Your task to perform on an android device: Open Maps and search for coffee Image 0: 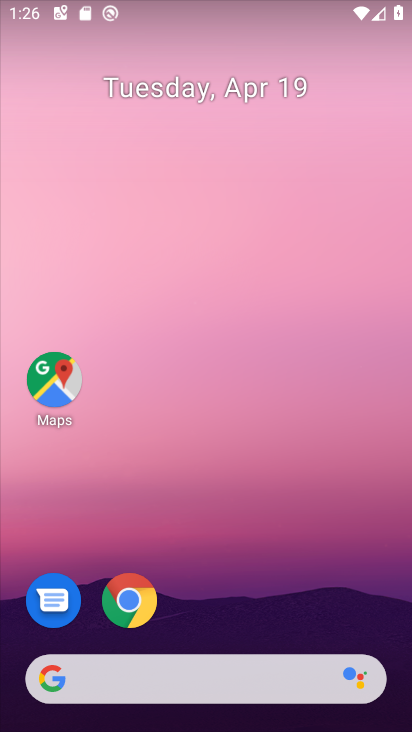
Step 0: drag from (330, 571) to (304, 0)
Your task to perform on an android device: Open Maps and search for coffee Image 1: 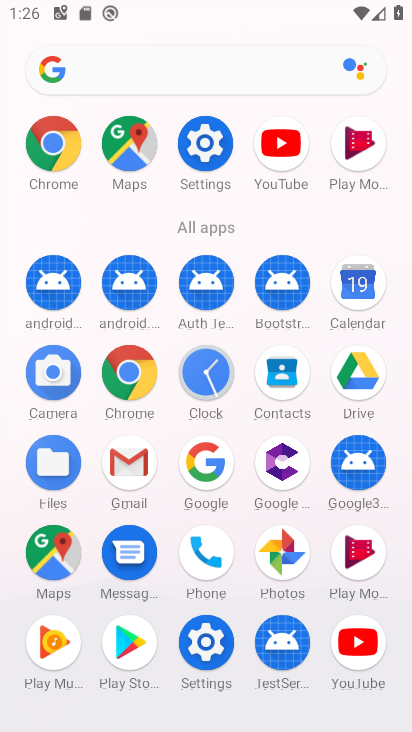
Step 1: click (47, 556)
Your task to perform on an android device: Open Maps and search for coffee Image 2: 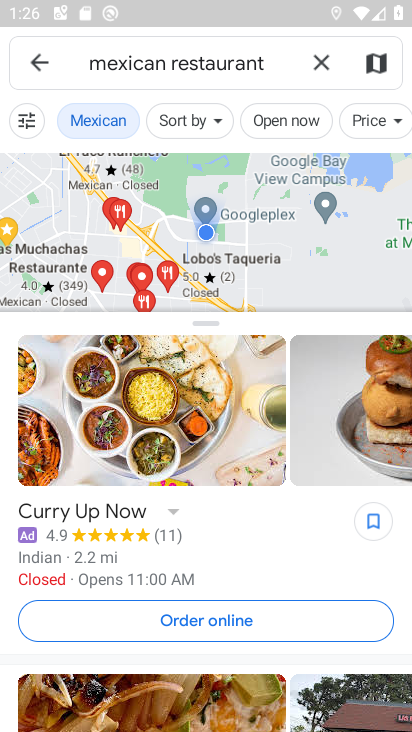
Step 2: click (324, 60)
Your task to perform on an android device: Open Maps and search for coffee Image 3: 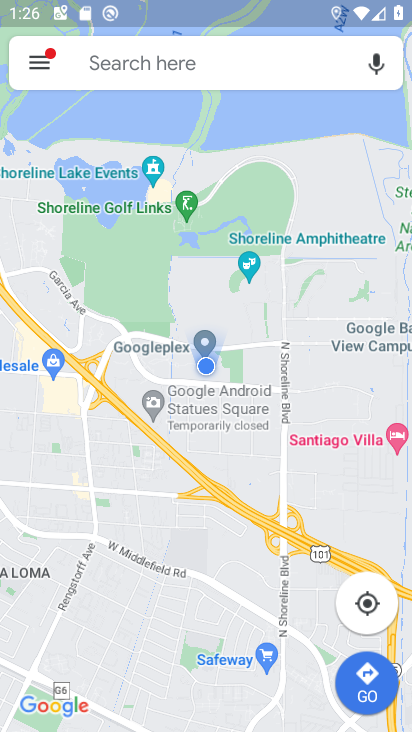
Step 3: click (223, 77)
Your task to perform on an android device: Open Maps and search for coffee Image 4: 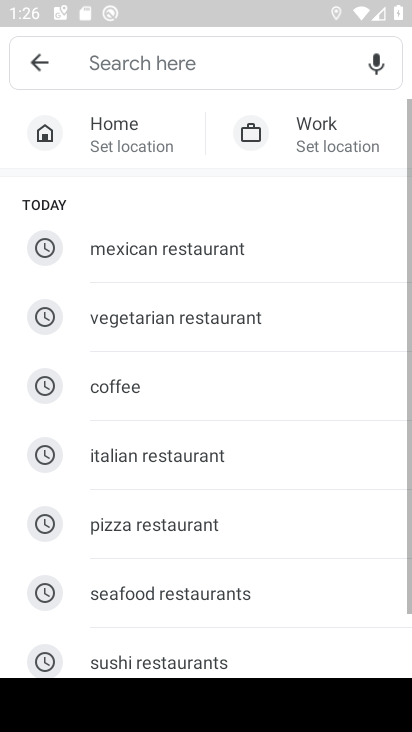
Step 4: click (155, 382)
Your task to perform on an android device: Open Maps and search for coffee Image 5: 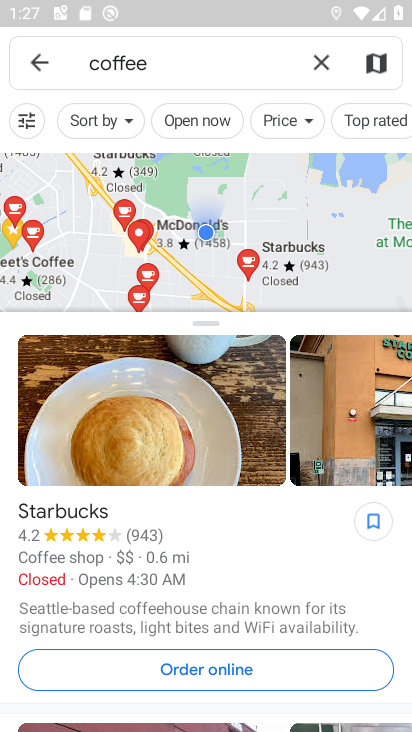
Step 5: task complete